Your task to perform on an android device: manage bookmarks in the chrome app Image 0: 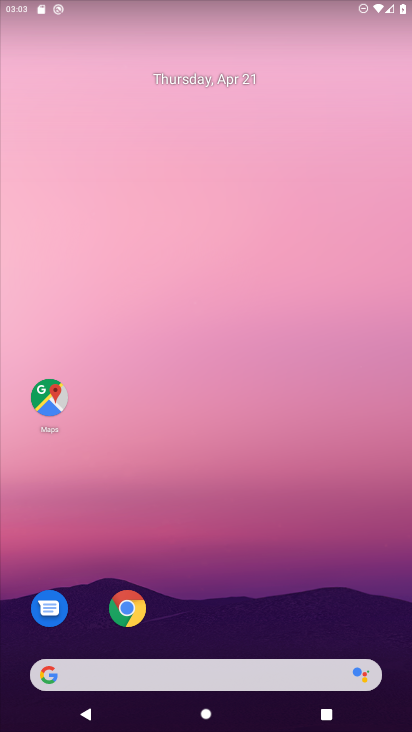
Step 0: drag from (267, 521) to (295, 219)
Your task to perform on an android device: manage bookmarks in the chrome app Image 1: 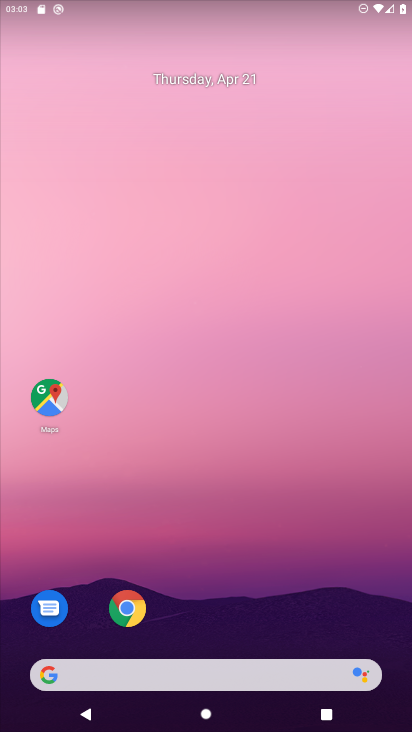
Step 1: drag from (240, 637) to (325, 149)
Your task to perform on an android device: manage bookmarks in the chrome app Image 2: 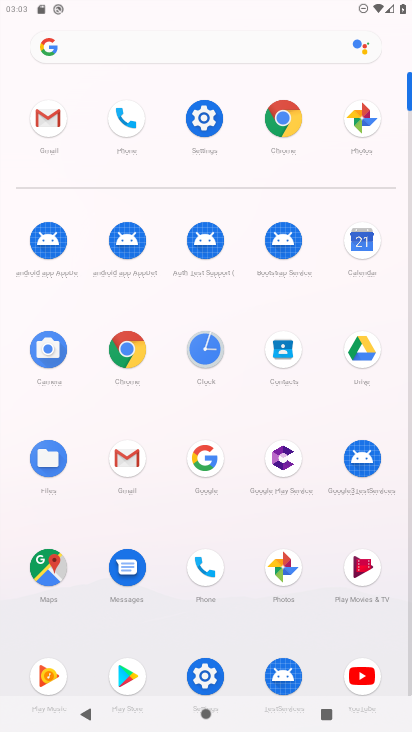
Step 2: click (282, 118)
Your task to perform on an android device: manage bookmarks in the chrome app Image 3: 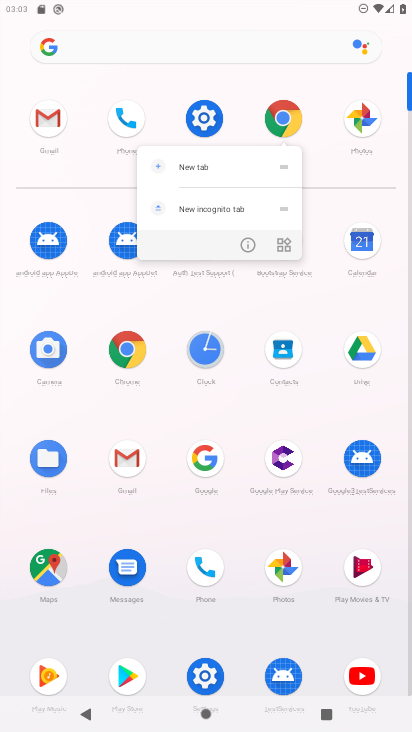
Step 3: click (229, 140)
Your task to perform on an android device: manage bookmarks in the chrome app Image 4: 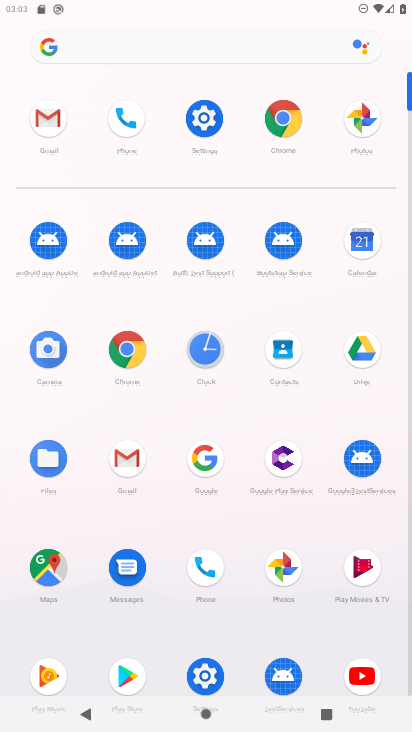
Step 4: click (274, 115)
Your task to perform on an android device: manage bookmarks in the chrome app Image 5: 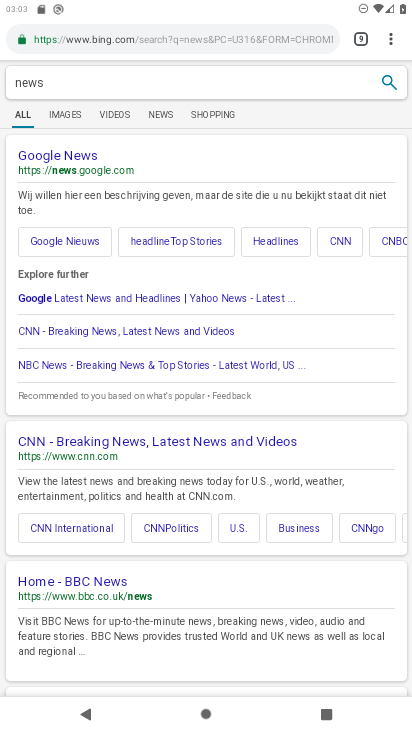
Step 5: click (392, 31)
Your task to perform on an android device: manage bookmarks in the chrome app Image 6: 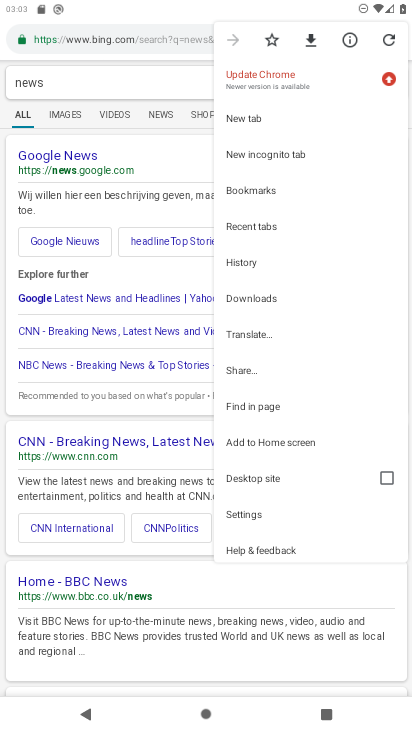
Step 6: click (260, 193)
Your task to perform on an android device: manage bookmarks in the chrome app Image 7: 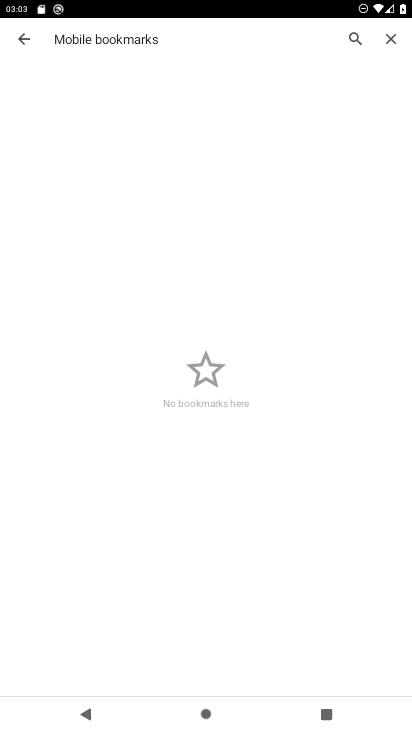
Step 7: task complete